Your task to perform on an android device: What is the news today? Image 0: 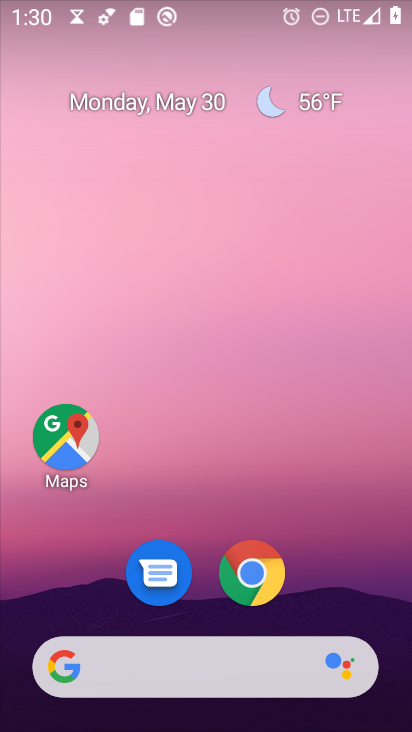
Step 0: drag from (173, 582) to (206, 46)
Your task to perform on an android device: What is the news today? Image 1: 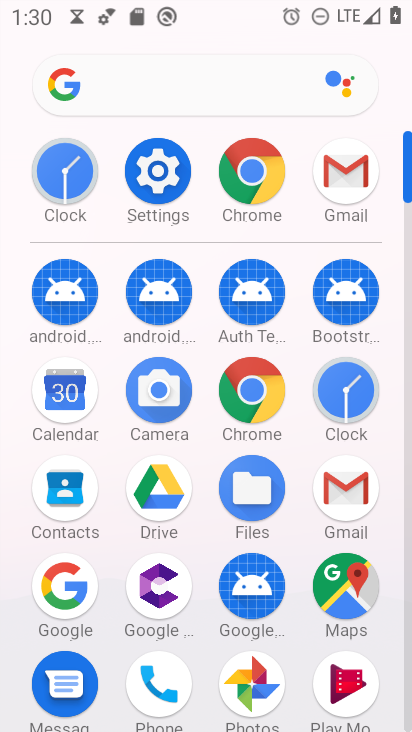
Step 1: click (235, 401)
Your task to perform on an android device: What is the news today? Image 2: 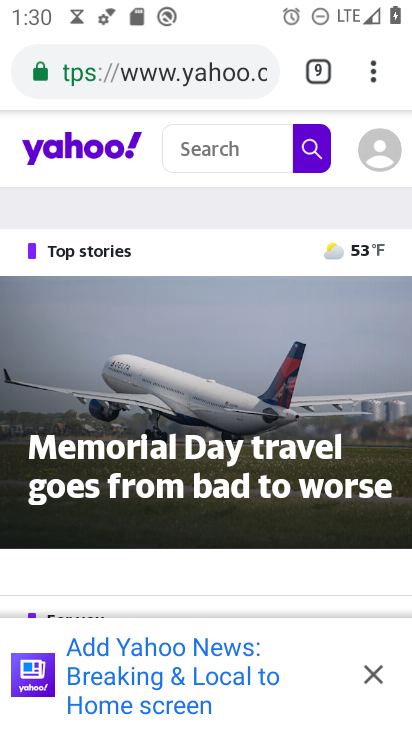
Step 2: click (211, 70)
Your task to perform on an android device: What is the news today? Image 3: 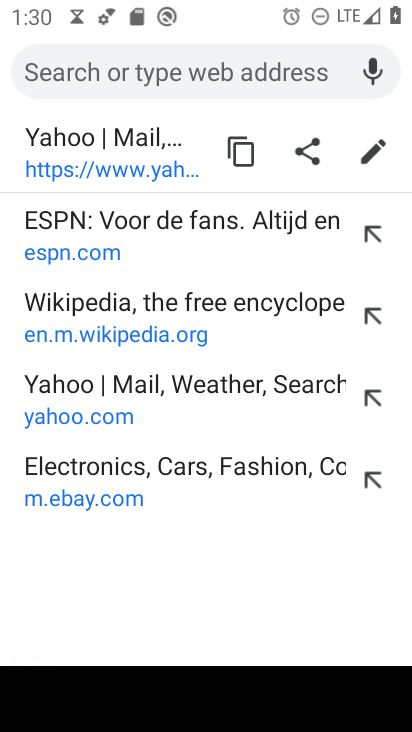
Step 3: type "news today"
Your task to perform on an android device: What is the news today? Image 4: 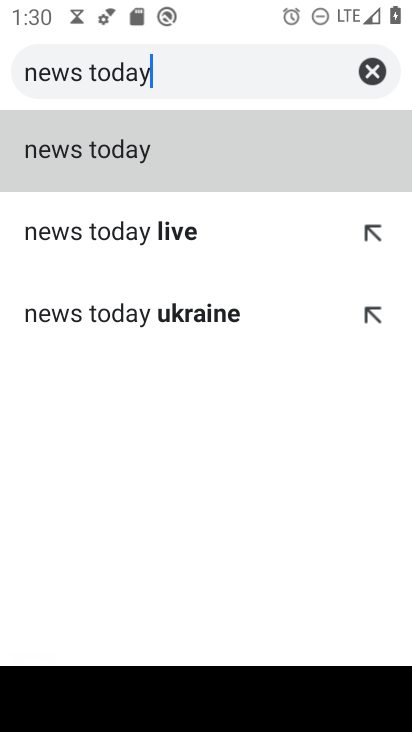
Step 4: task complete